Your task to perform on an android device: Open the calendar and show me this week's events? Image 0: 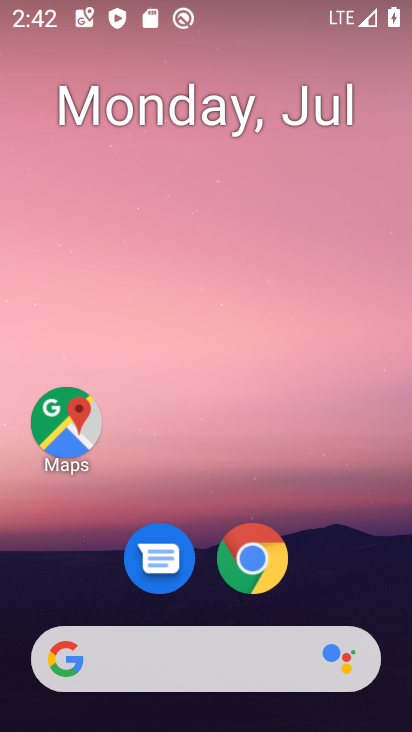
Step 0: press home button
Your task to perform on an android device: Open the calendar and show me this week's events? Image 1: 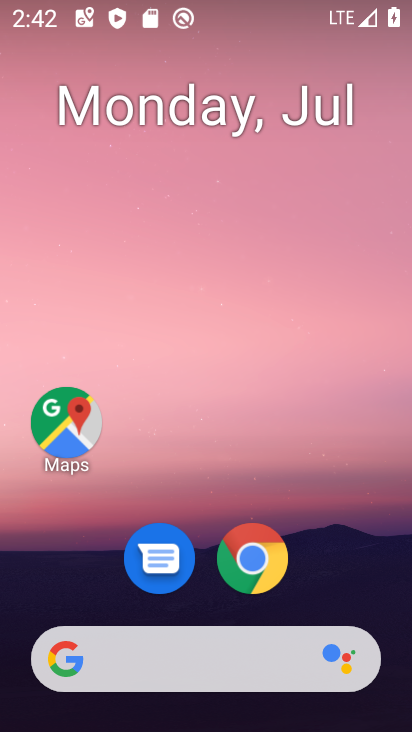
Step 1: drag from (372, 572) to (382, 121)
Your task to perform on an android device: Open the calendar and show me this week's events? Image 2: 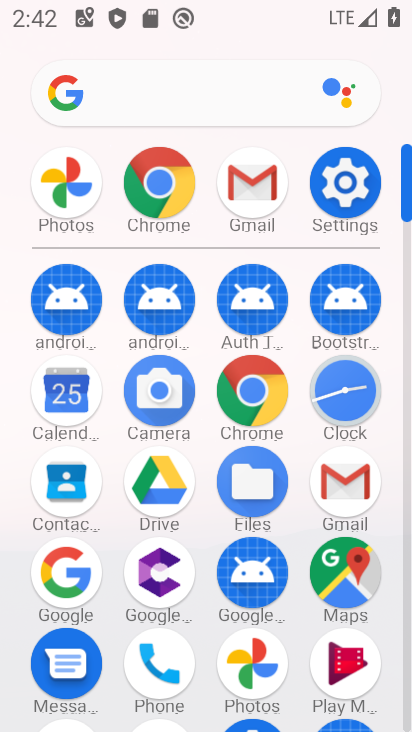
Step 2: click (76, 397)
Your task to perform on an android device: Open the calendar and show me this week's events? Image 3: 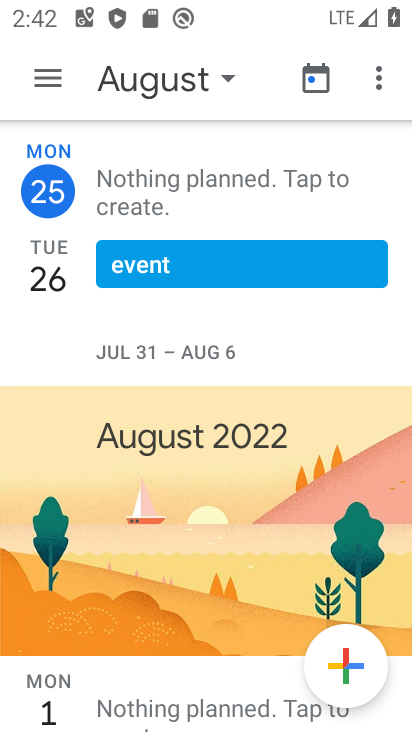
Step 3: click (137, 263)
Your task to perform on an android device: Open the calendar and show me this week's events? Image 4: 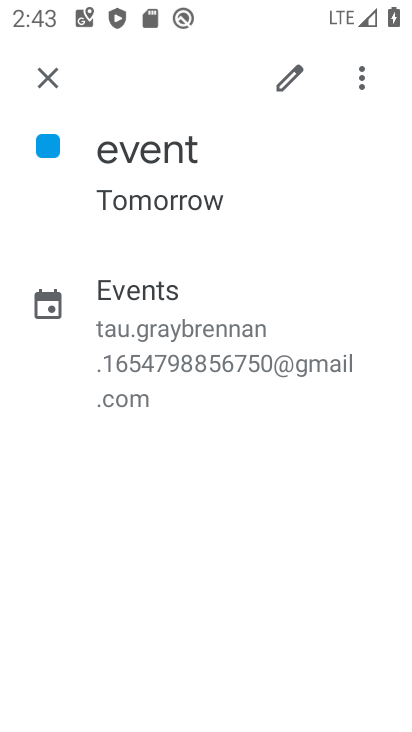
Step 4: task complete